Your task to perform on an android device: Open Yahoo.com Image 0: 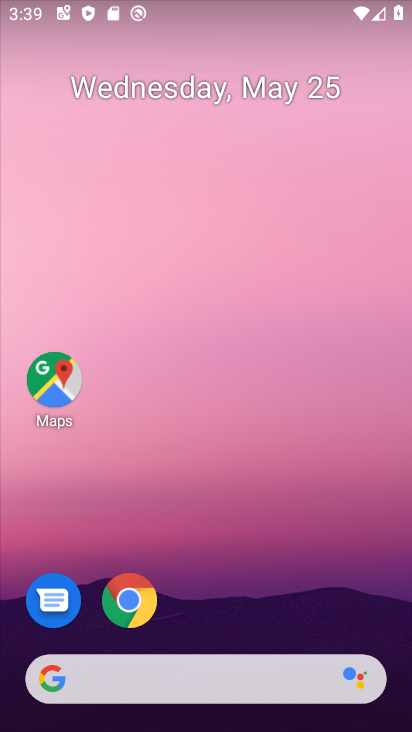
Step 0: click (132, 612)
Your task to perform on an android device: Open Yahoo.com Image 1: 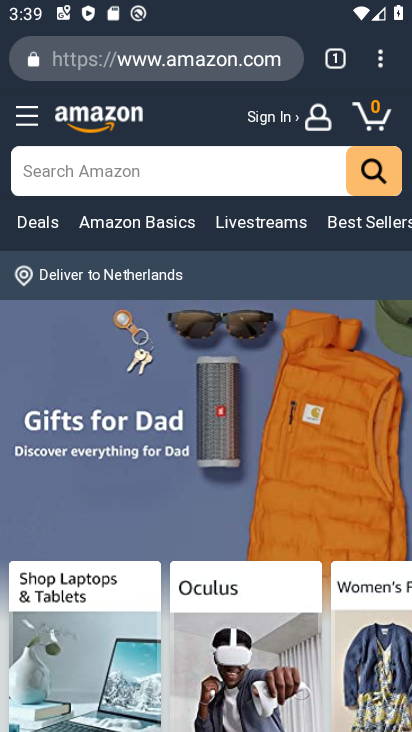
Step 1: click (338, 52)
Your task to perform on an android device: Open Yahoo.com Image 2: 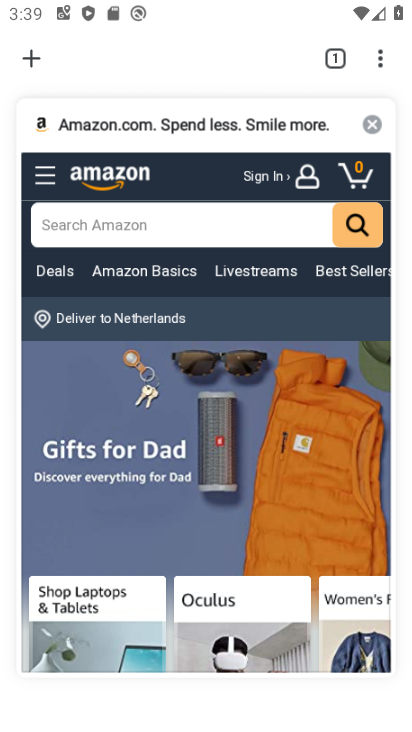
Step 2: click (368, 121)
Your task to perform on an android device: Open Yahoo.com Image 3: 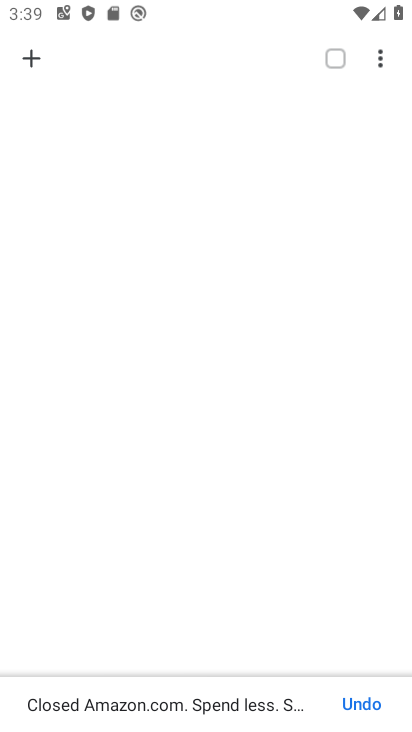
Step 3: click (28, 58)
Your task to perform on an android device: Open Yahoo.com Image 4: 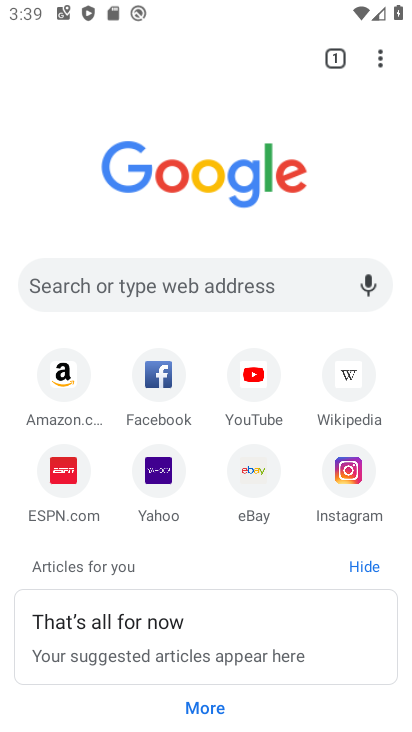
Step 4: click (170, 466)
Your task to perform on an android device: Open Yahoo.com Image 5: 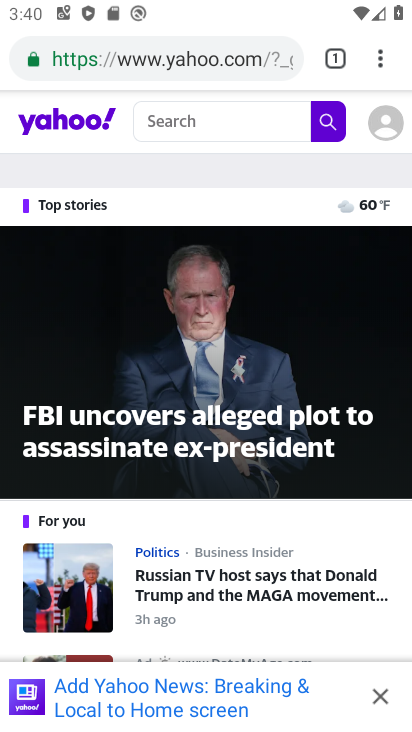
Step 5: task complete